Your task to perform on an android device: Open my contact list Image 0: 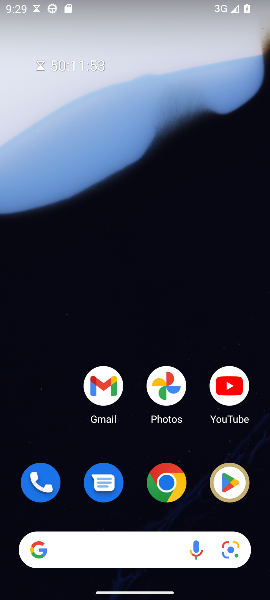
Step 0: drag from (134, 485) to (135, 140)
Your task to perform on an android device: Open my contact list Image 1: 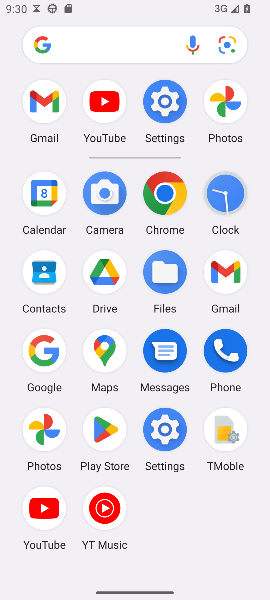
Step 1: click (224, 343)
Your task to perform on an android device: Open my contact list Image 2: 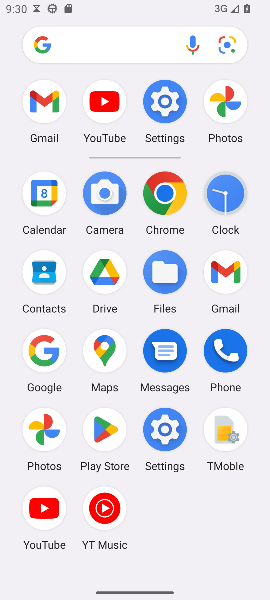
Step 2: click (228, 321)
Your task to perform on an android device: Open my contact list Image 3: 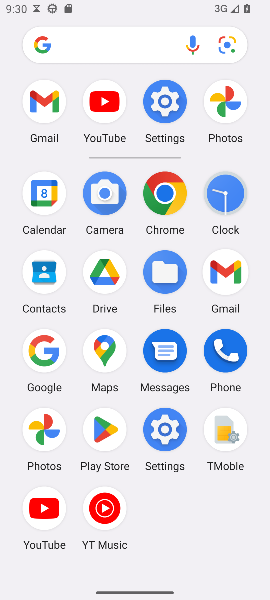
Step 3: click (231, 334)
Your task to perform on an android device: Open my contact list Image 4: 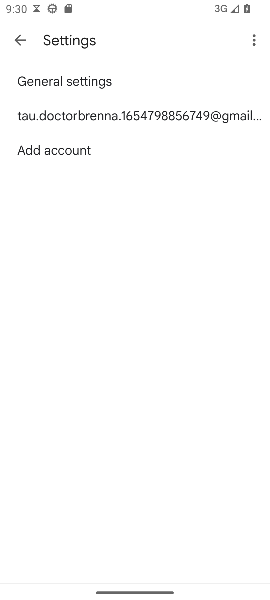
Step 4: press home button
Your task to perform on an android device: Open my contact list Image 5: 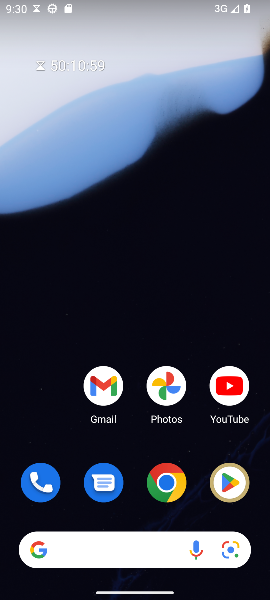
Step 5: drag from (147, 514) to (182, 36)
Your task to perform on an android device: Open my contact list Image 6: 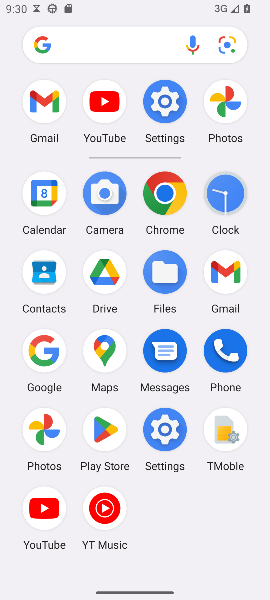
Step 6: click (221, 364)
Your task to perform on an android device: Open my contact list Image 7: 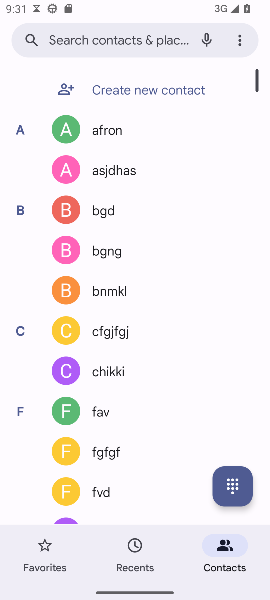
Step 7: task complete